Your task to perform on an android device: delete the emails in spam in the gmail app Image 0: 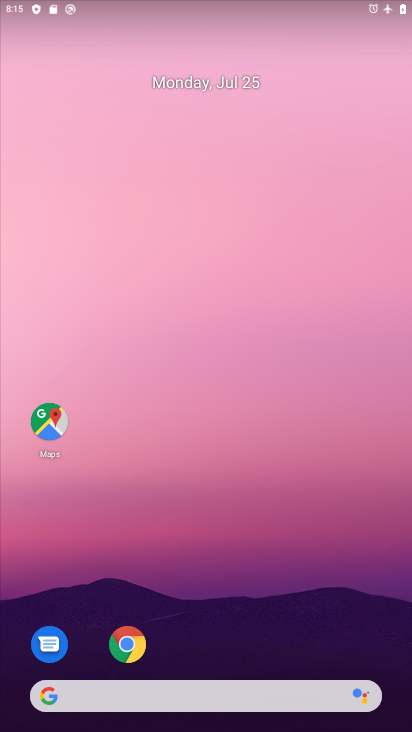
Step 0: drag from (188, 604) to (219, 109)
Your task to perform on an android device: delete the emails in spam in the gmail app Image 1: 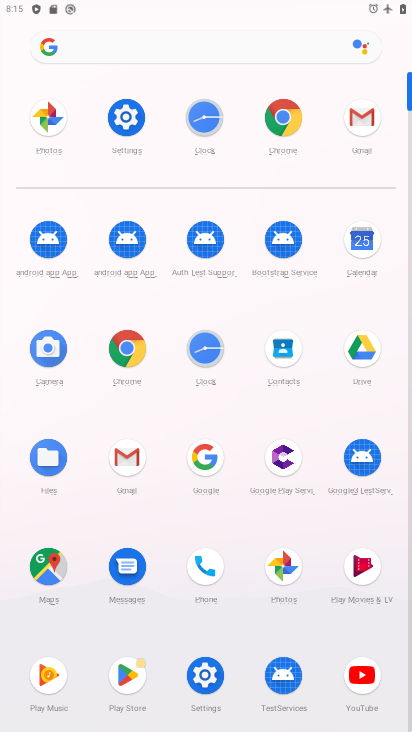
Step 1: click (365, 121)
Your task to perform on an android device: delete the emails in spam in the gmail app Image 2: 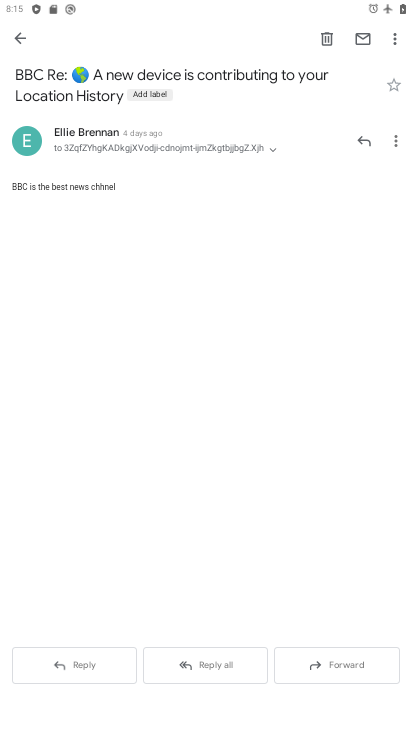
Step 2: click (10, 41)
Your task to perform on an android device: delete the emails in spam in the gmail app Image 3: 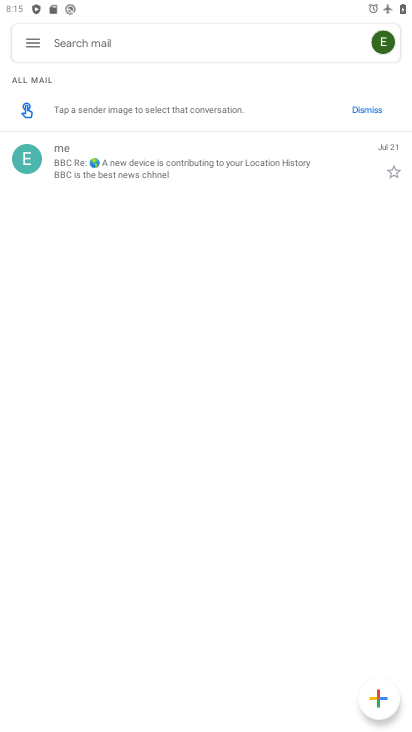
Step 3: click (28, 41)
Your task to perform on an android device: delete the emails in spam in the gmail app Image 4: 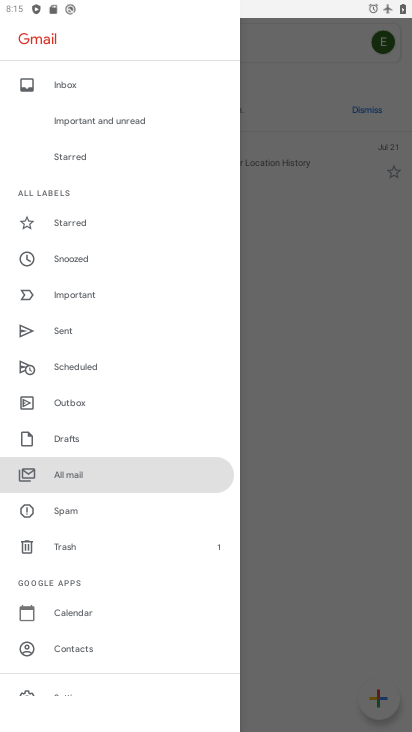
Step 4: click (74, 510)
Your task to perform on an android device: delete the emails in spam in the gmail app Image 5: 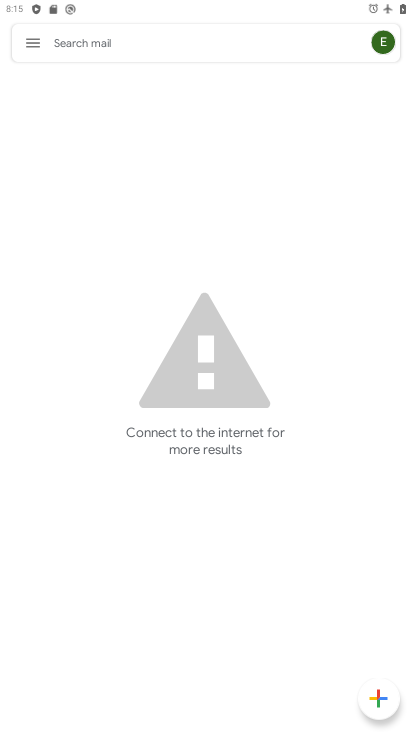
Step 5: task complete